Your task to perform on an android device: toggle sleep mode Image 0: 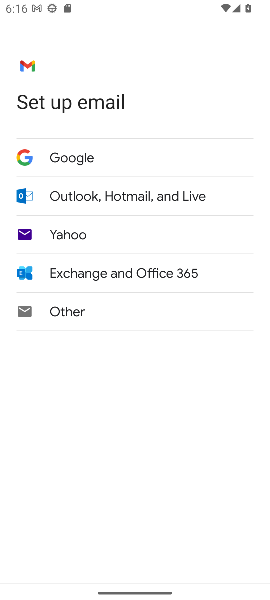
Step 0: press home button
Your task to perform on an android device: toggle sleep mode Image 1: 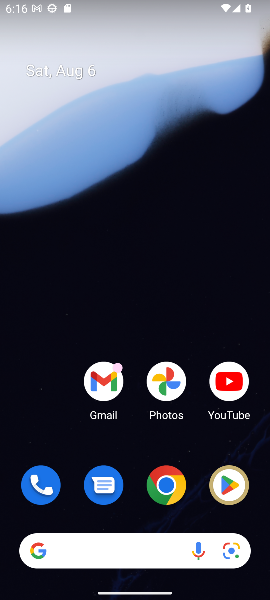
Step 1: drag from (58, 434) to (69, 35)
Your task to perform on an android device: toggle sleep mode Image 2: 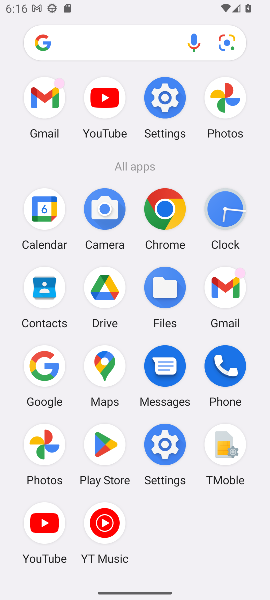
Step 2: click (168, 444)
Your task to perform on an android device: toggle sleep mode Image 3: 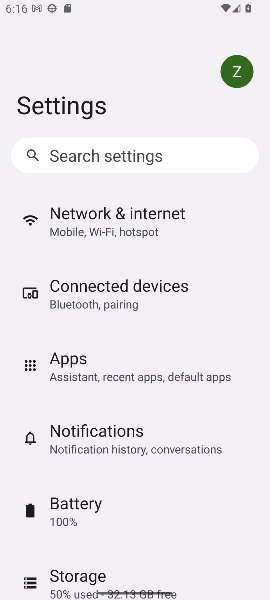
Step 3: drag from (118, 546) to (110, 330)
Your task to perform on an android device: toggle sleep mode Image 4: 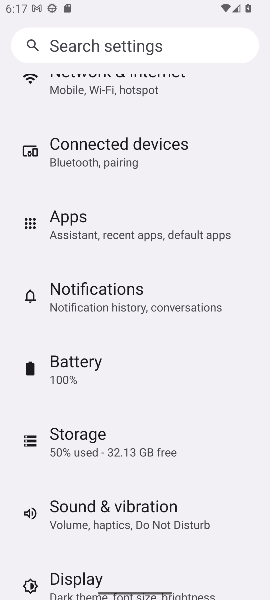
Step 4: click (73, 583)
Your task to perform on an android device: toggle sleep mode Image 5: 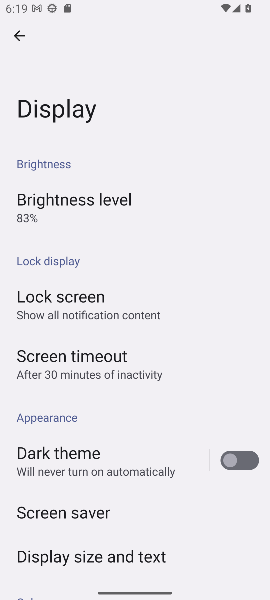
Step 5: task complete